Your task to perform on an android device: open app "NewsBreak: Local News & Alerts" Image 0: 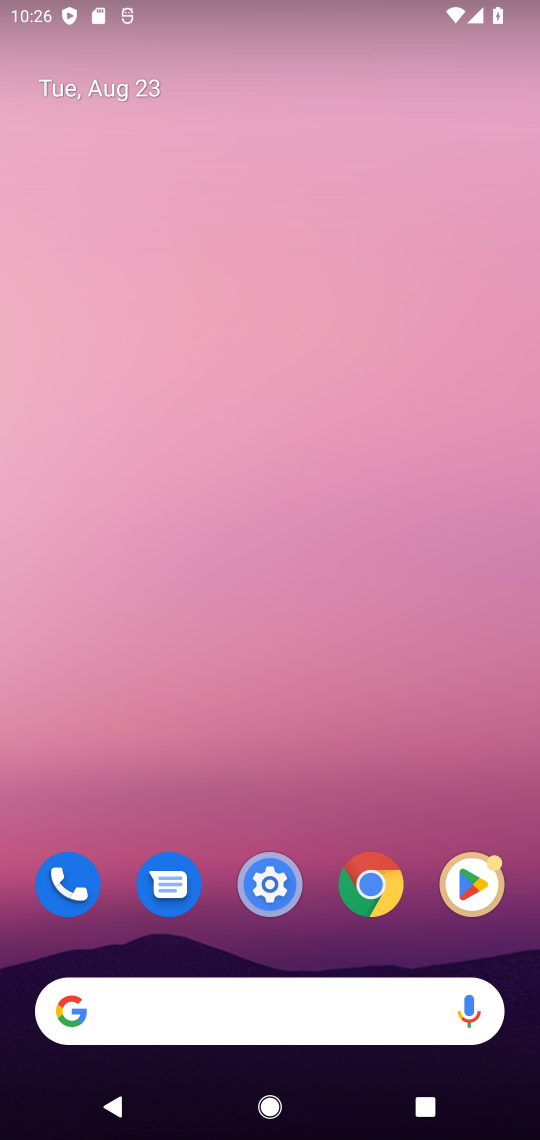
Step 0: click (471, 877)
Your task to perform on an android device: open app "NewsBreak: Local News & Alerts" Image 1: 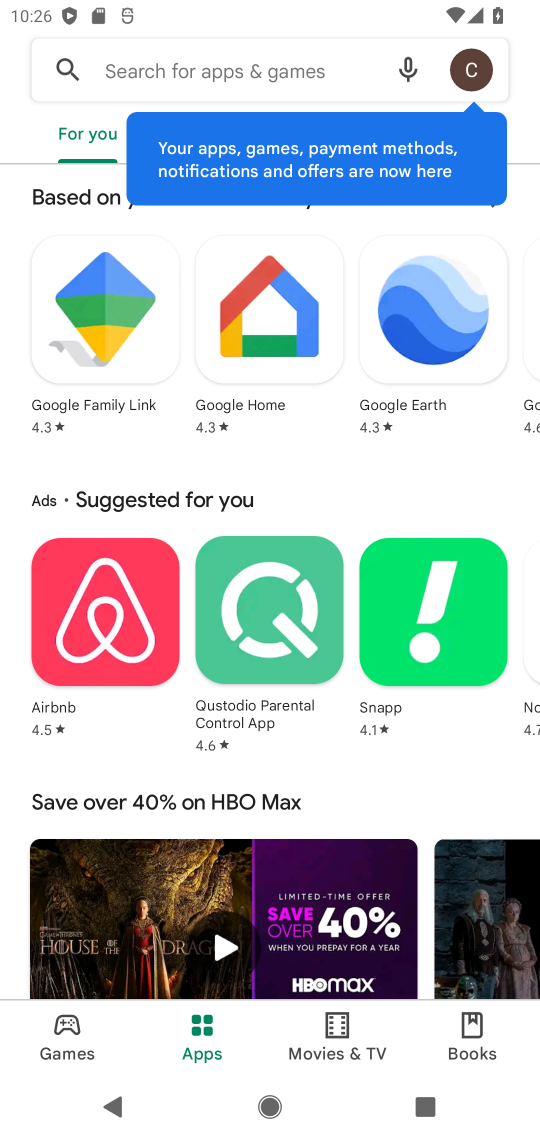
Step 1: click (165, 63)
Your task to perform on an android device: open app "NewsBreak: Local News & Alerts" Image 2: 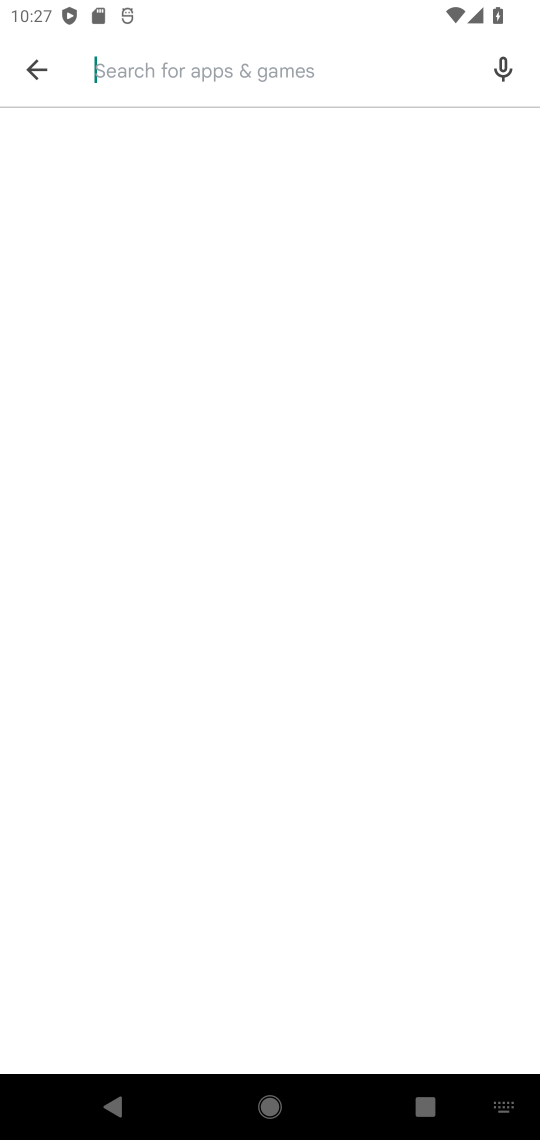
Step 2: type "NewsBreak: Local News & Alerts"
Your task to perform on an android device: open app "NewsBreak: Local News & Alerts" Image 3: 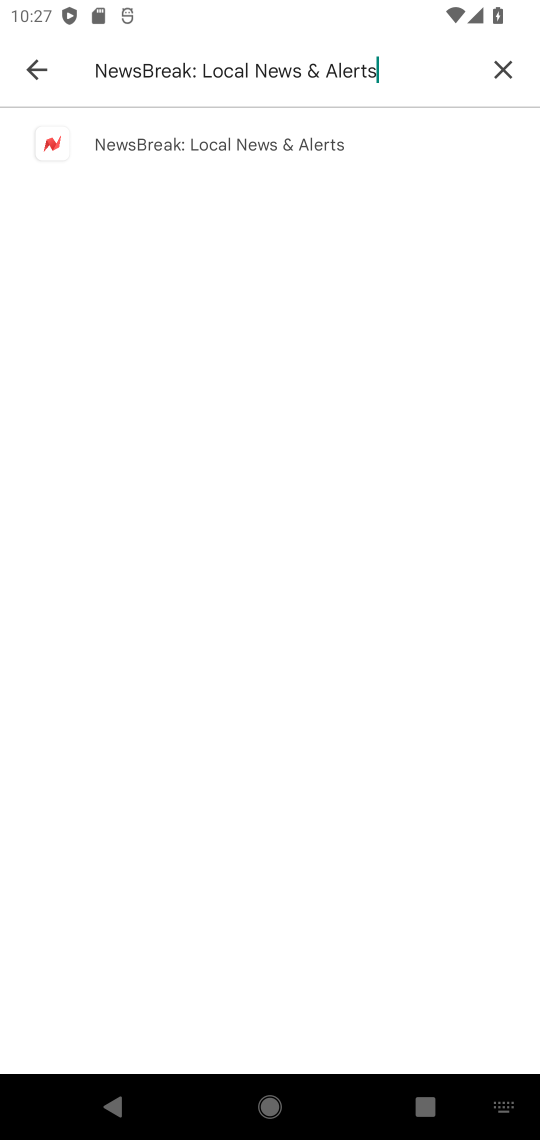
Step 3: click (149, 152)
Your task to perform on an android device: open app "NewsBreak: Local News & Alerts" Image 4: 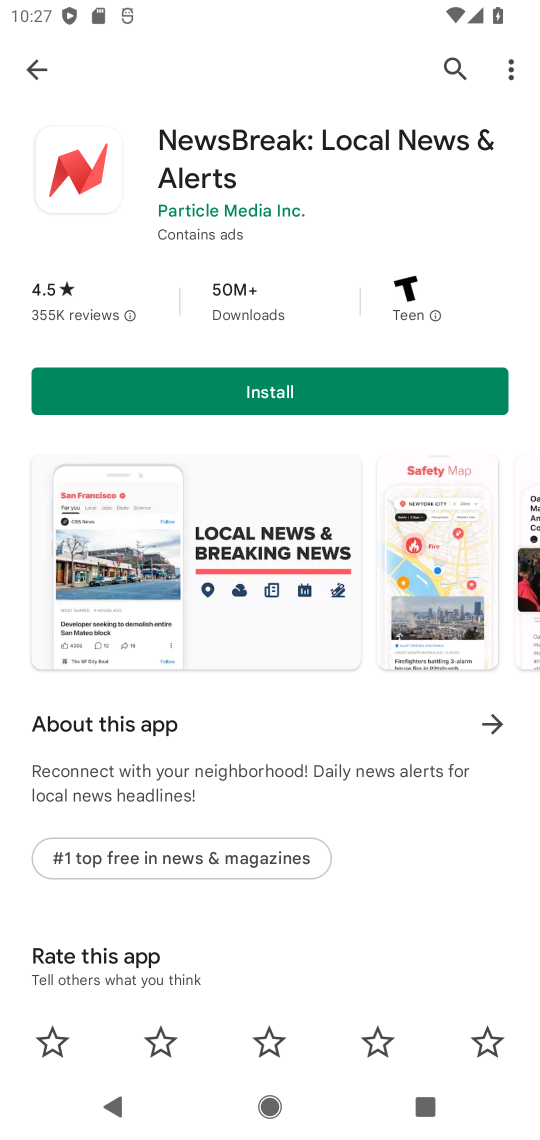
Step 4: task complete